Your task to perform on an android device: move a message to another label in the gmail app Image 0: 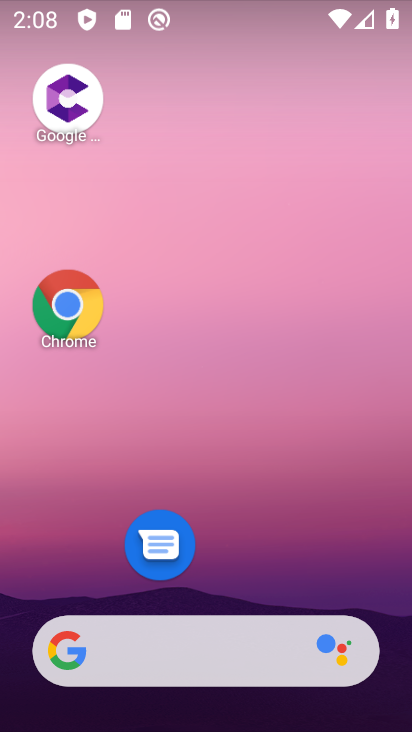
Step 0: drag from (20, 409) to (386, 405)
Your task to perform on an android device: move a message to another label in the gmail app Image 1: 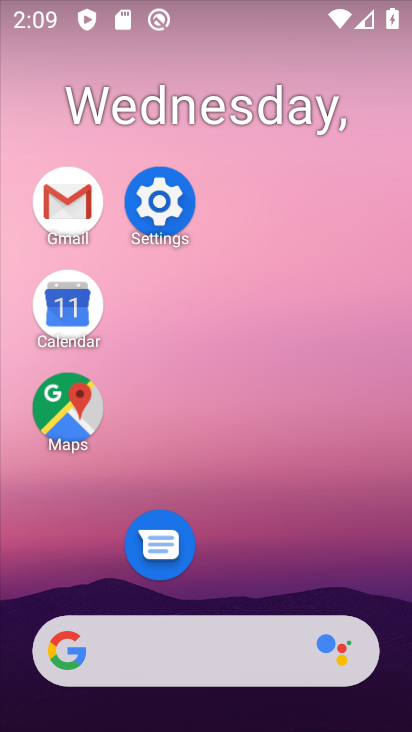
Step 1: click (81, 212)
Your task to perform on an android device: move a message to another label in the gmail app Image 2: 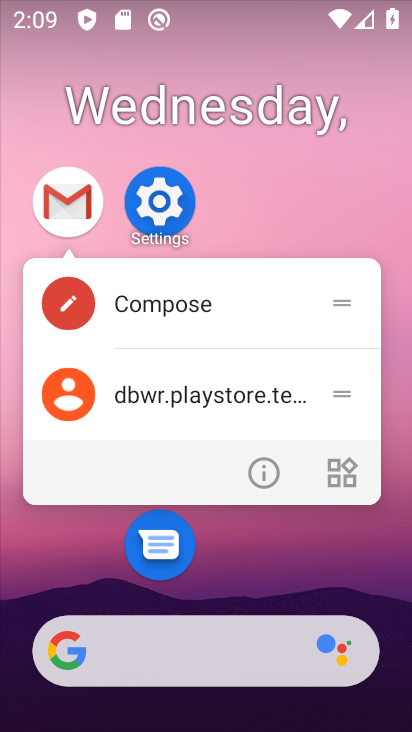
Step 2: click (81, 212)
Your task to perform on an android device: move a message to another label in the gmail app Image 3: 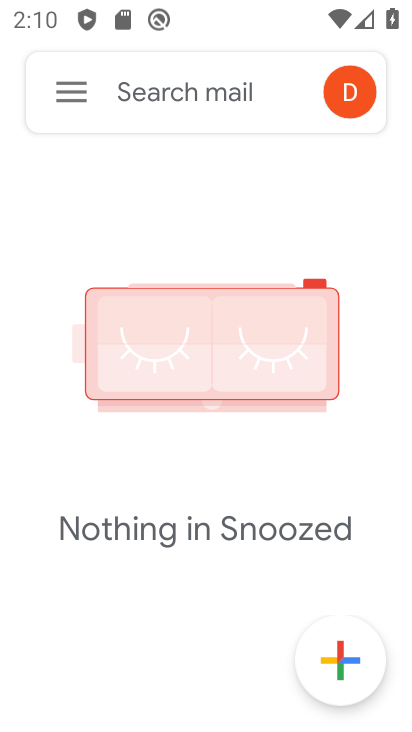
Step 3: click (78, 89)
Your task to perform on an android device: move a message to another label in the gmail app Image 4: 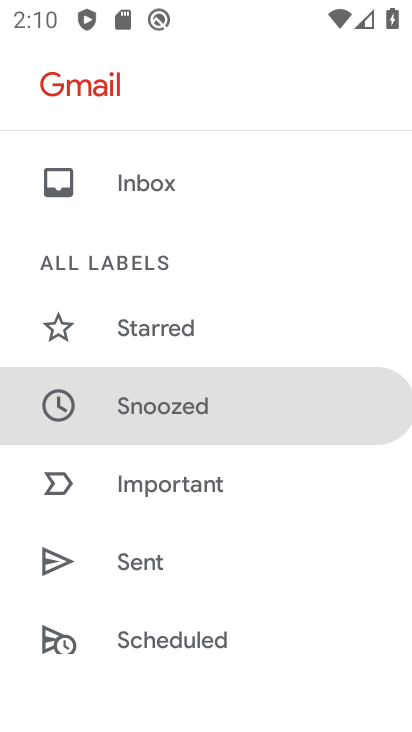
Step 4: drag from (316, 606) to (347, 197)
Your task to perform on an android device: move a message to another label in the gmail app Image 5: 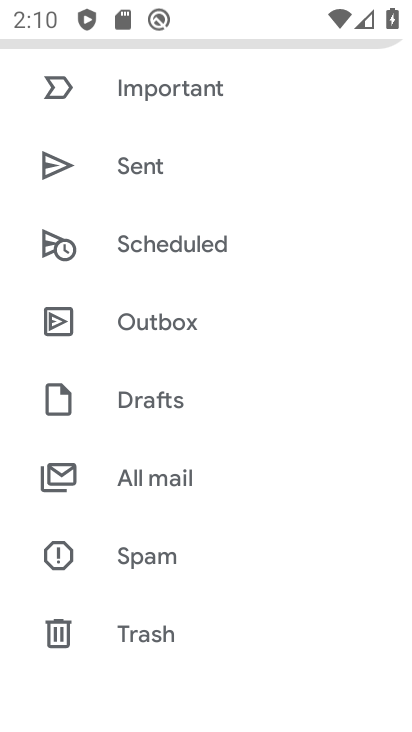
Step 5: click (190, 483)
Your task to perform on an android device: move a message to another label in the gmail app Image 6: 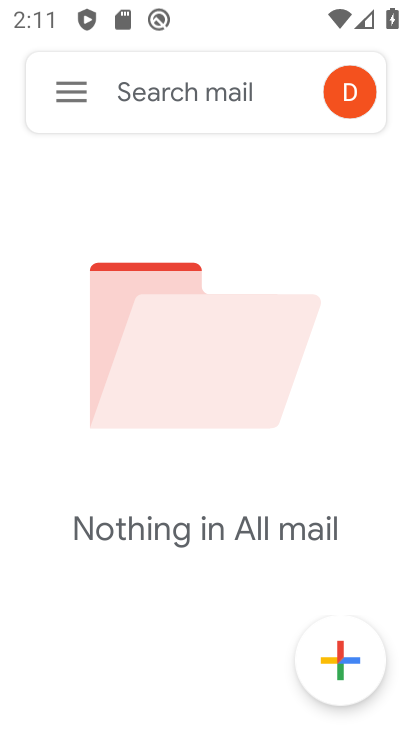
Step 6: task complete